Your task to perform on an android device: turn off wifi Image 0: 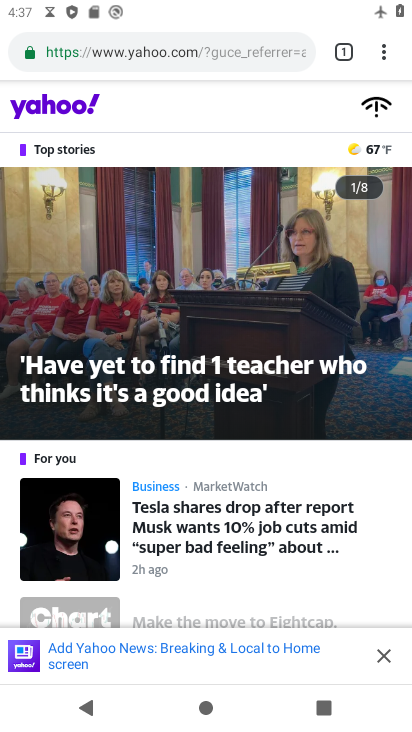
Step 0: press home button
Your task to perform on an android device: turn off wifi Image 1: 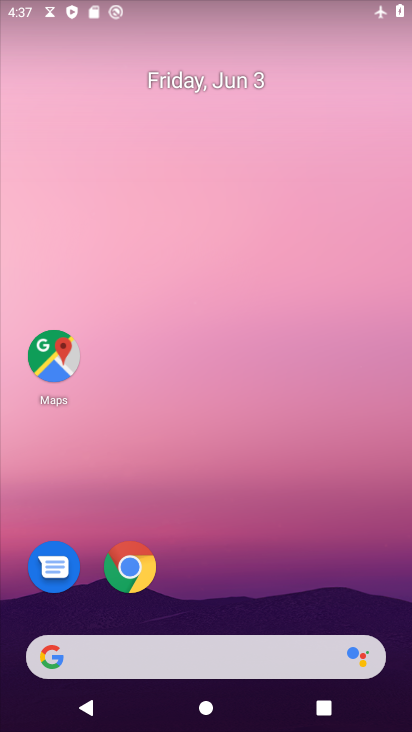
Step 1: drag from (247, 564) to (211, 58)
Your task to perform on an android device: turn off wifi Image 2: 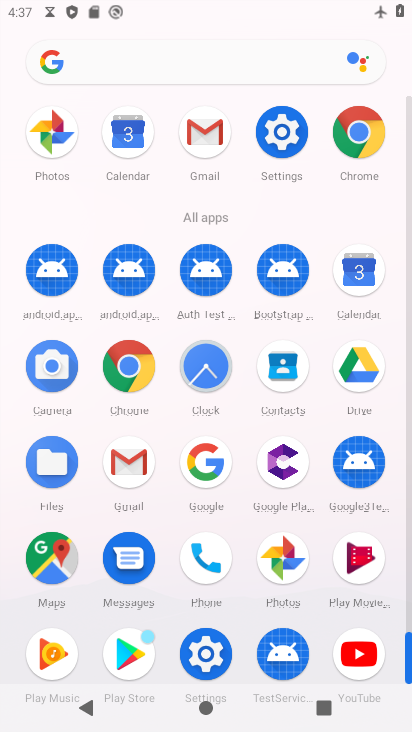
Step 2: click (281, 131)
Your task to perform on an android device: turn off wifi Image 3: 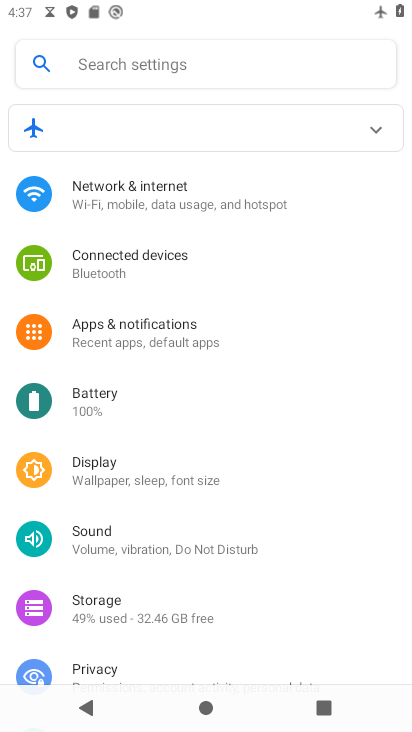
Step 3: click (193, 208)
Your task to perform on an android device: turn off wifi Image 4: 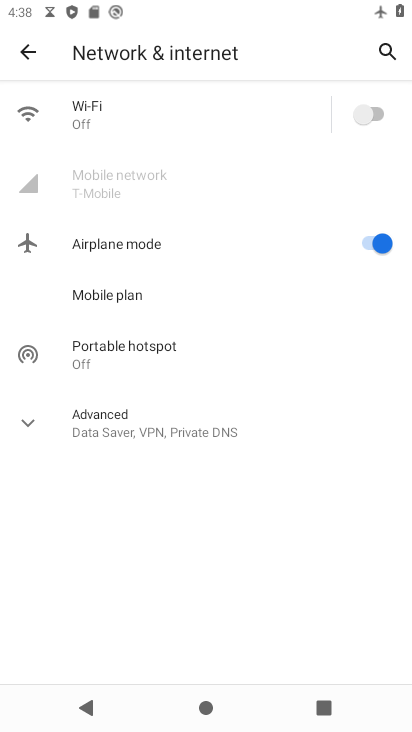
Step 4: task complete